Your task to perform on an android device: turn on data saver in the chrome app Image 0: 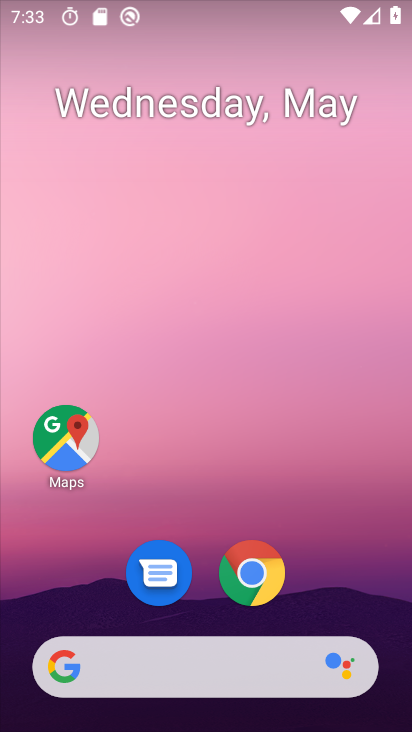
Step 0: click (250, 563)
Your task to perform on an android device: turn on data saver in the chrome app Image 1: 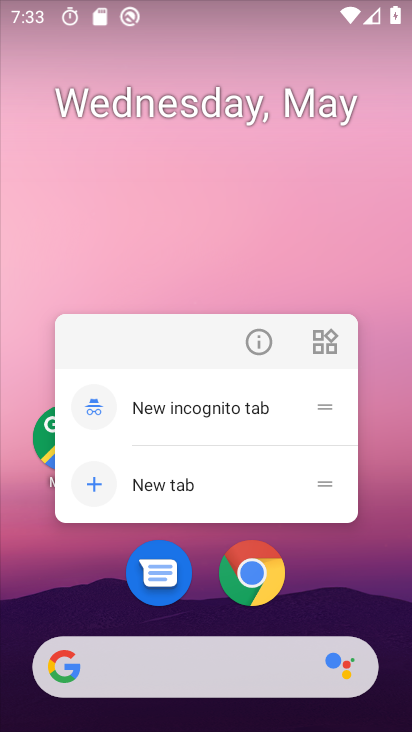
Step 1: click (257, 557)
Your task to perform on an android device: turn on data saver in the chrome app Image 2: 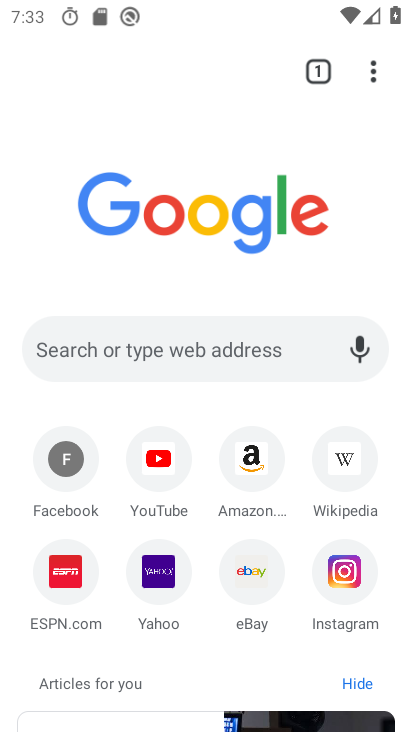
Step 2: click (367, 62)
Your task to perform on an android device: turn on data saver in the chrome app Image 3: 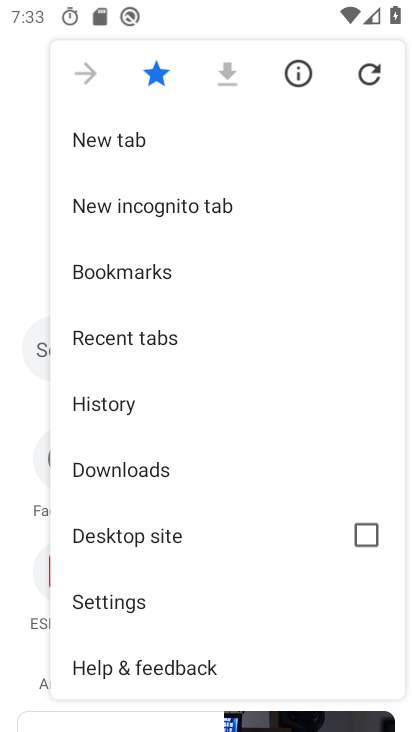
Step 3: click (251, 608)
Your task to perform on an android device: turn on data saver in the chrome app Image 4: 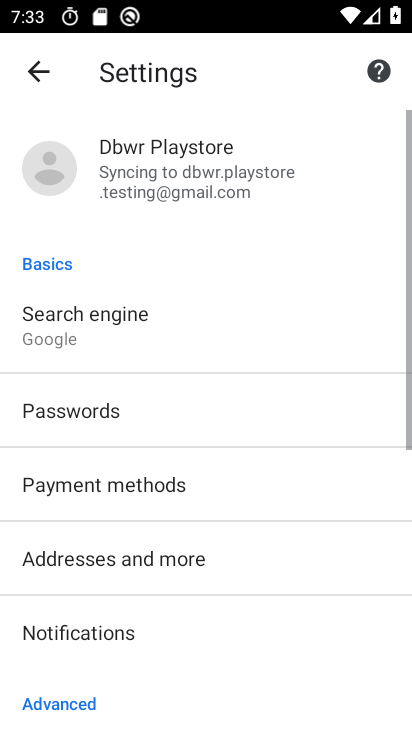
Step 4: drag from (249, 601) to (272, 380)
Your task to perform on an android device: turn on data saver in the chrome app Image 5: 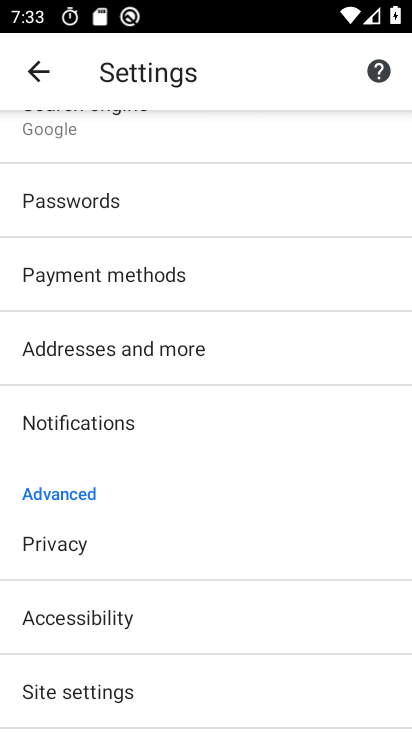
Step 5: drag from (234, 624) to (249, 492)
Your task to perform on an android device: turn on data saver in the chrome app Image 6: 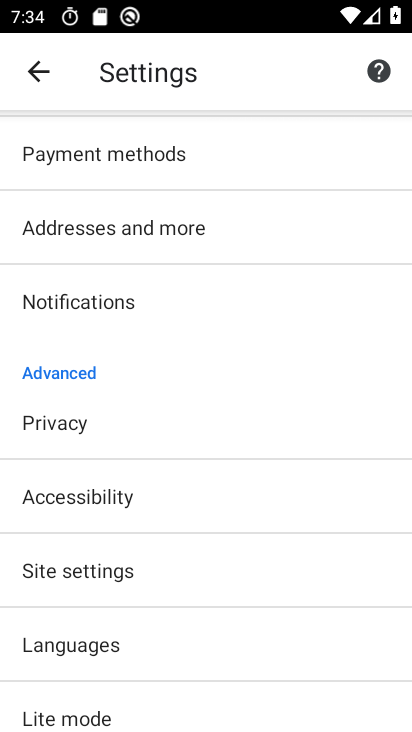
Step 6: click (239, 695)
Your task to perform on an android device: turn on data saver in the chrome app Image 7: 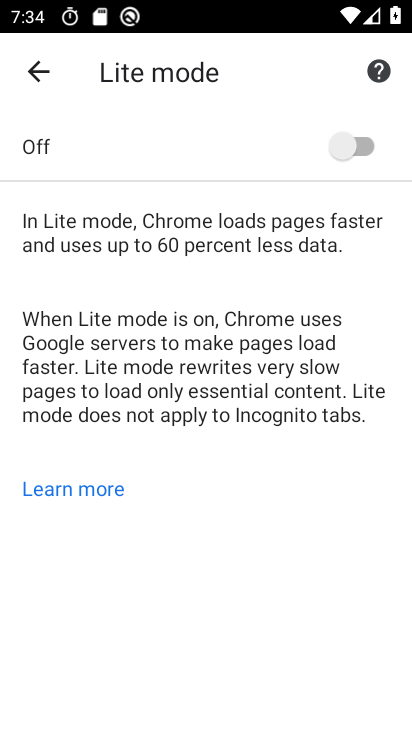
Step 7: click (372, 142)
Your task to perform on an android device: turn on data saver in the chrome app Image 8: 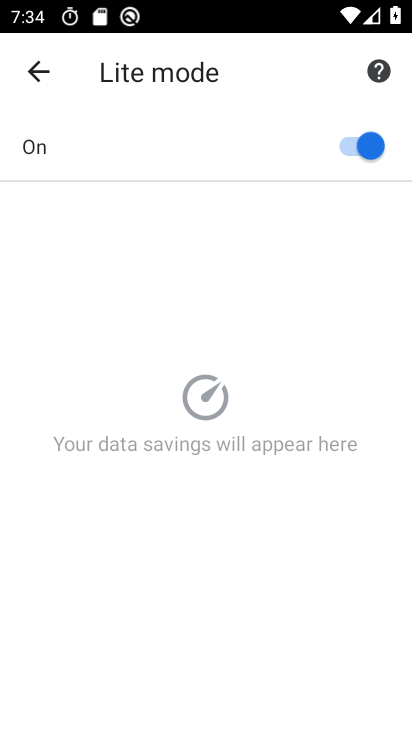
Step 8: task complete